Your task to perform on an android device: turn off airplane mode Image 0: 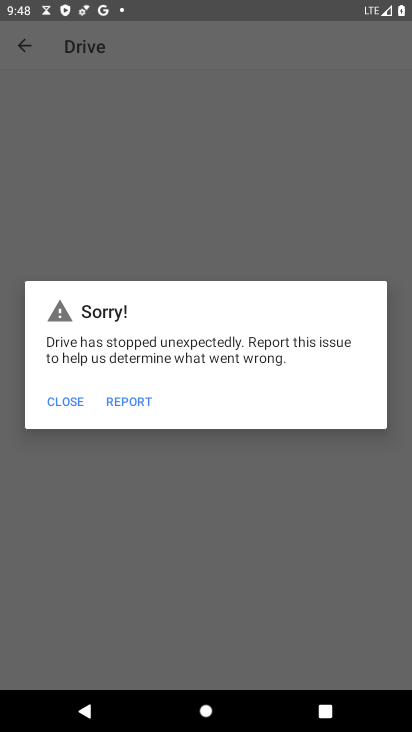
Step 0: press home button
Your task to perform on an android device: turn off airplane mode Image 1: 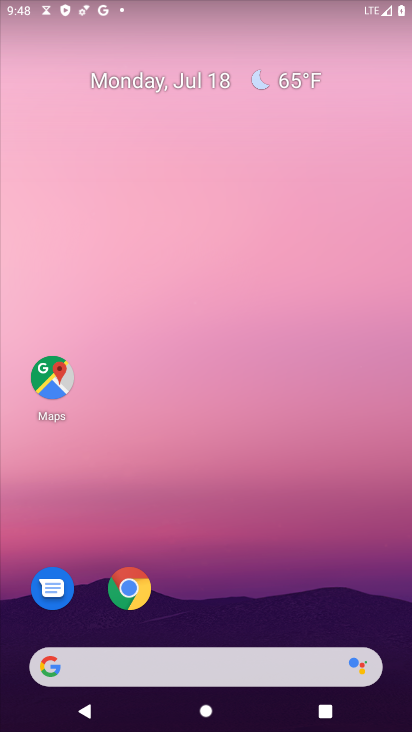
Step 1: drag from (200, 674) to (184, 185)
Your task to perform on an android device: turn off airplane mode Image 2: 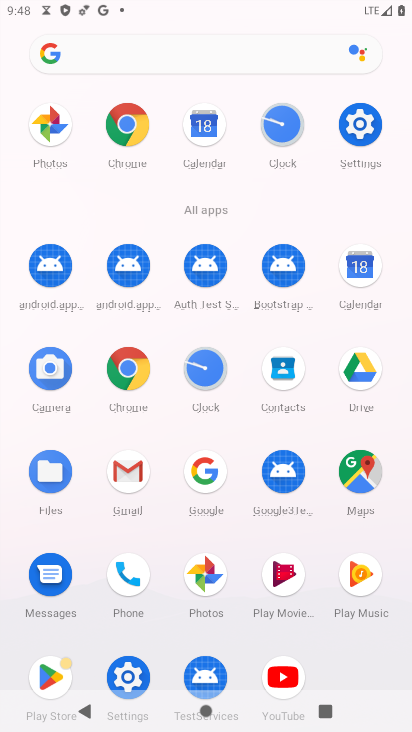
Step 2: click (358, 124)
Your task to perform on an android device: turn off airplane mode Image 3: 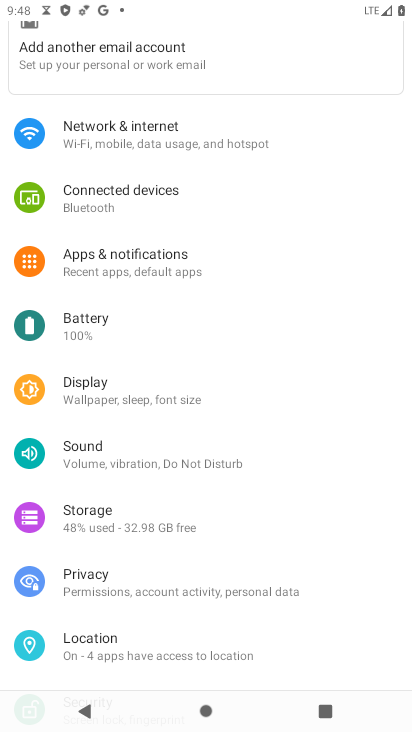
Step 3: click (198, 147)
Your task to perform on an android device: turn off airplane mode Image 4: 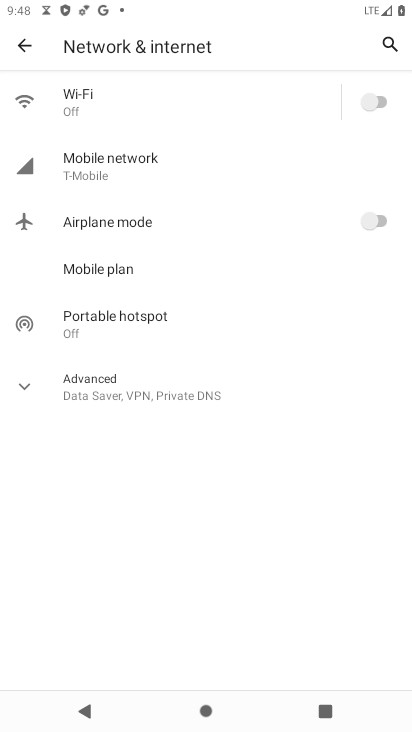
Step 4: task complete